Your task to perform on an android device: Go to battery settings Image 0: 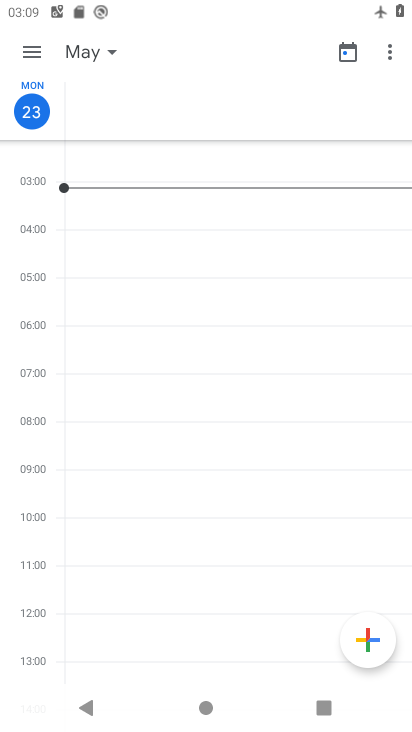
Step 0: press home button
Your task to perform on an android device: Go to battery settings Image 1: 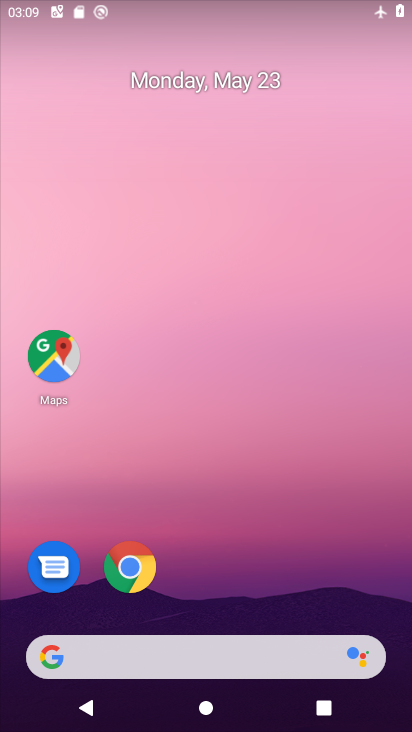
Step 1: drag from (252, 558) to (179, 154)
Your task to perform on an android device: Go to battery settings Image 2: 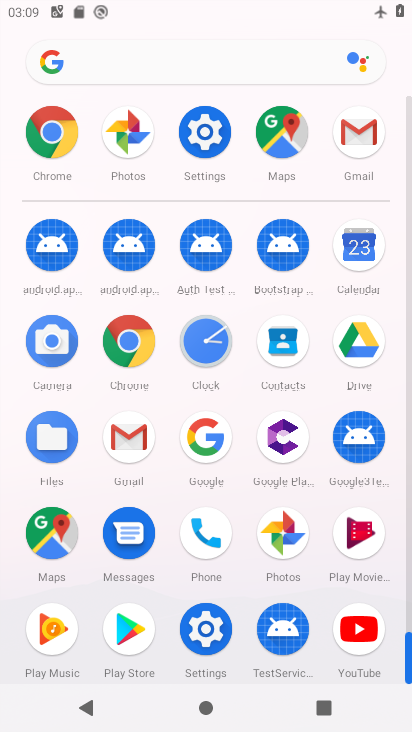
Step 2: click (195, 155)
Your task to perform on an android device: Go to battery settings Image 3: 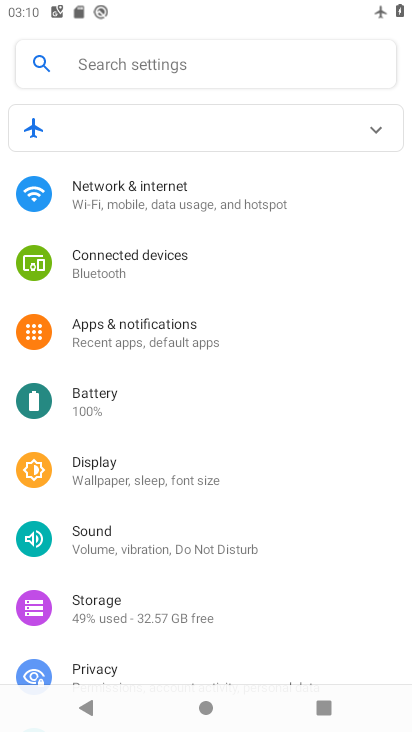
Step 3: click (120, 387)
Your task to perform on an android device: Go to battery settings Image 4: 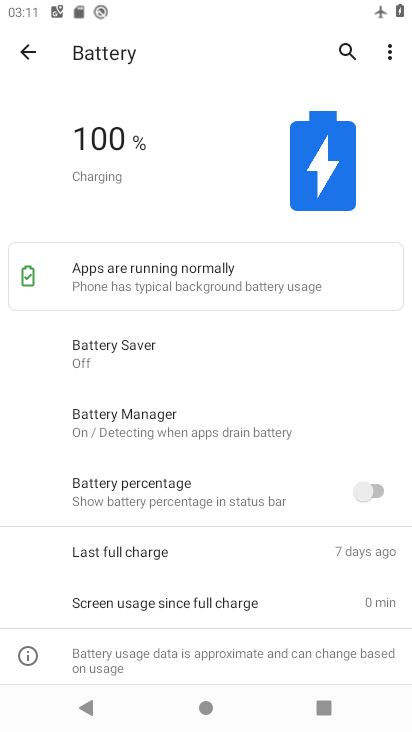
Step 4: task complete